Your task to perform on an android device: Open calendar and show me the fourth week of next month Image 0: 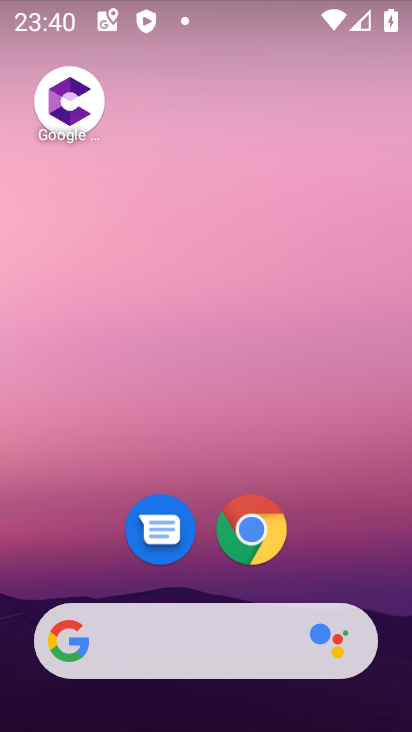
Step 0: drag from (46, 550) to (120, 111)
Your task to perform on an android device: Open calendar and show me the fourth week of next month Image 1: 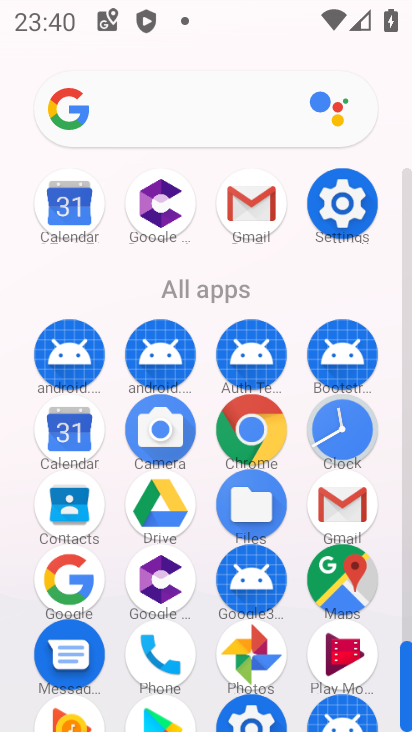
Step 1: click (65, 449)
Your task to perform on an android device: Open calendar and show me the fourth week of next month Image 2: 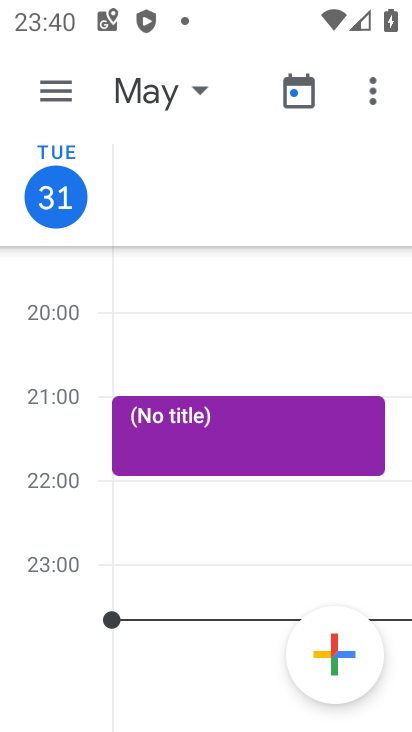
Step 2: click (135, 83)
Your task to perform on an android device: Open calendar and show me the fourth week of next month Image 3: 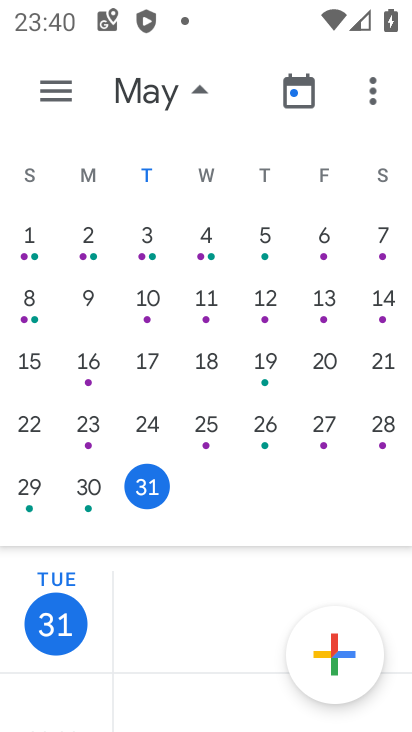
Step 3: drag from (359, 496) to (5, 483)
Your task to perform on an android device: Open calendar and show me the fourth week of next month Image 4: 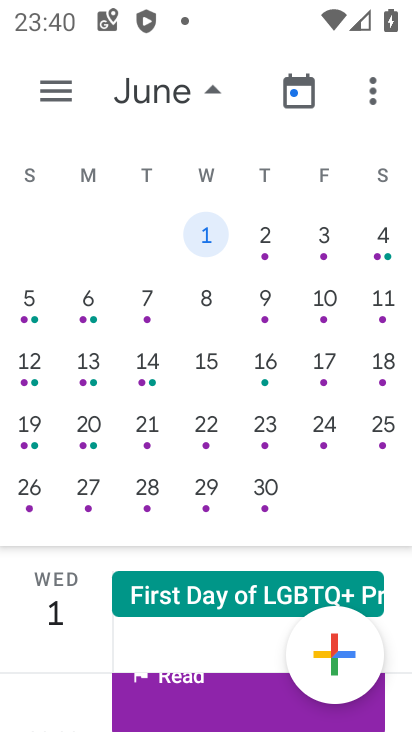
Step 4: click (33, 495)
Your task to perform on an android device: Open calendar and show me the fourth week of next month Image 5: 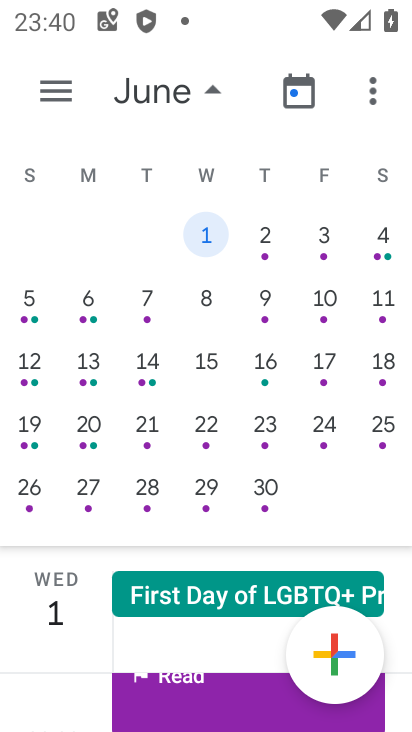
Step 5: click (35, 480)
Your task to perform on an android device: Open calendar and show me the fourth week of next month Image 6: 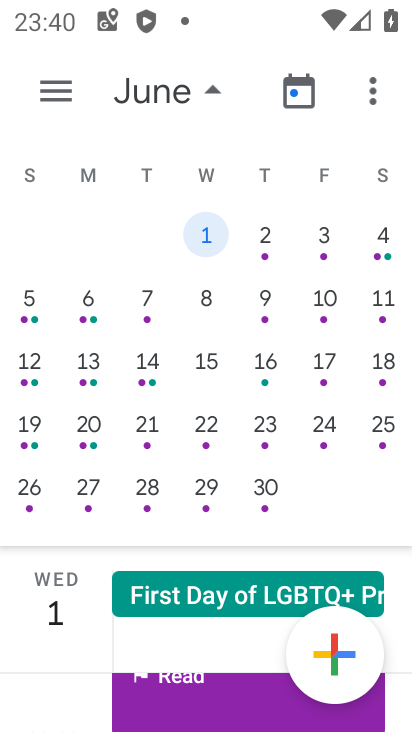
Step 6: click (35, 480)
Your task to perform on an android device: Open calendar and show me the fourth week of next month Image 7: 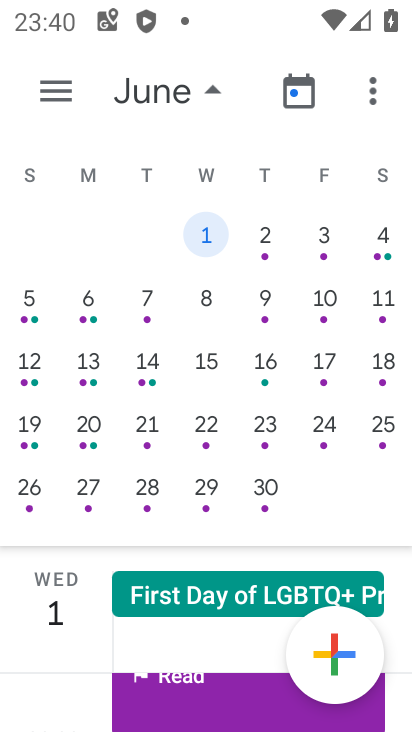
Step 7: click (23, 491)
Your task to perform on an android device: Open calendar and show me the fourth week of next month Image 8: 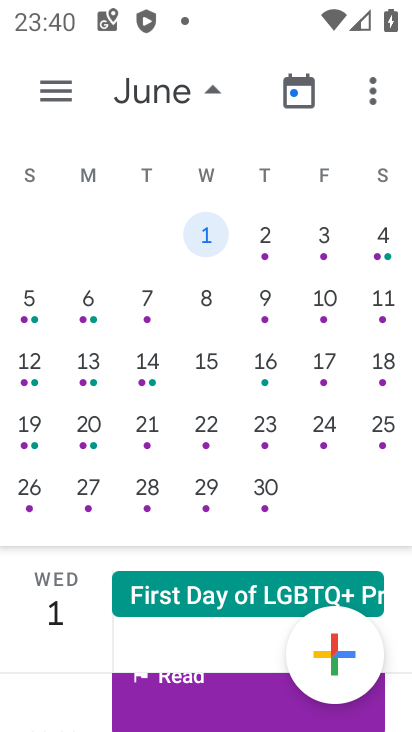
Step 8: click (36, 497)
Your task to perform on an android device: Open calendar and show me the fourth week of next month Image 9: 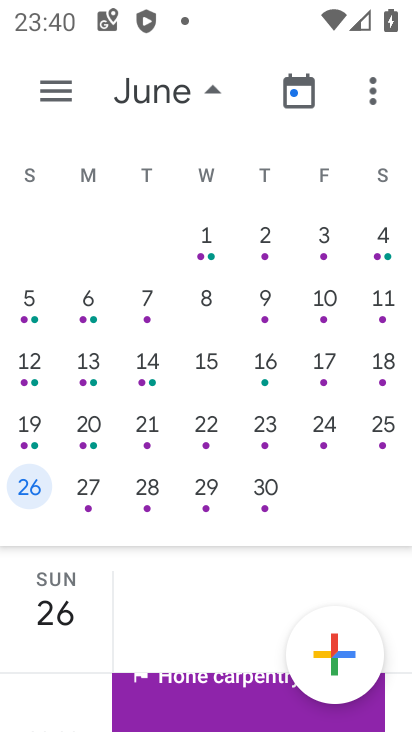
Step 9: click (42, 65)
Your task to perform on an android device: Open calendar and show me the fourth week of next month Image 10: 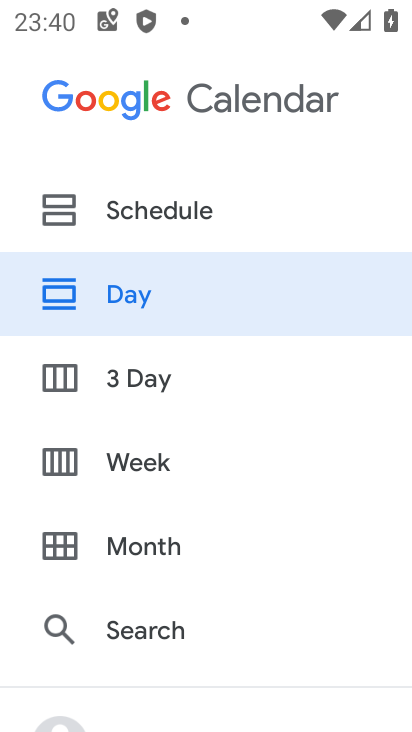
Step 10: click (124, 483)
Your task to perform on an android device: Open calendar and show me the fourth week of next month Image 11: 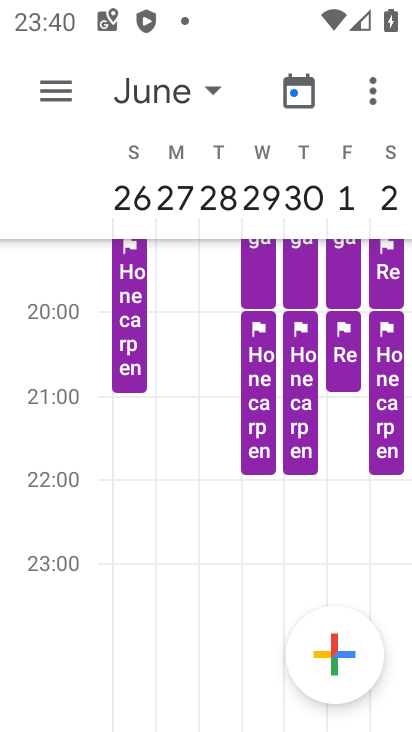
Step 11: task complete